Your task to perform on an android device: turn pop-ups off in chrome Image 0: 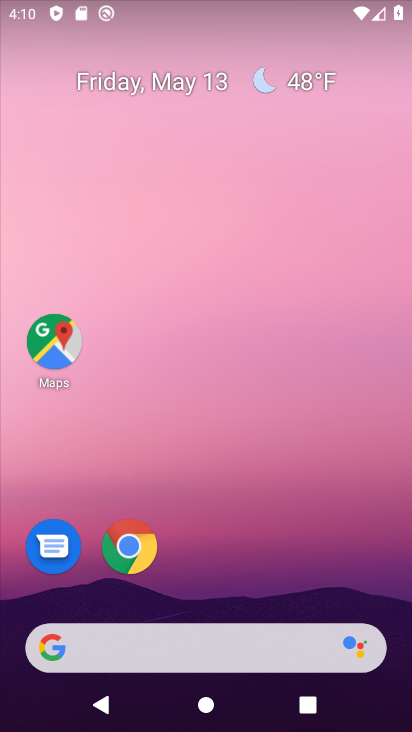
Step 0: drag from (254, 580) to (174, 7)
Your task to perform on an android device: turn pop-ups off in chrome Image 1: 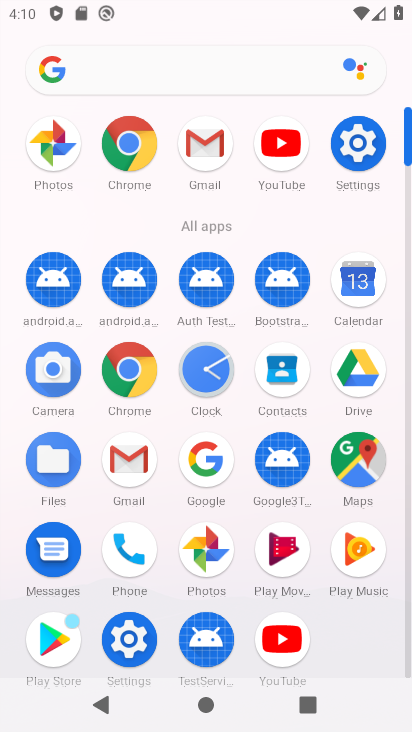
Step 1: drag from (372, 562) to (256, 5)
Your task to perform on an android device: turn pop-ups off in chrome Image 2: 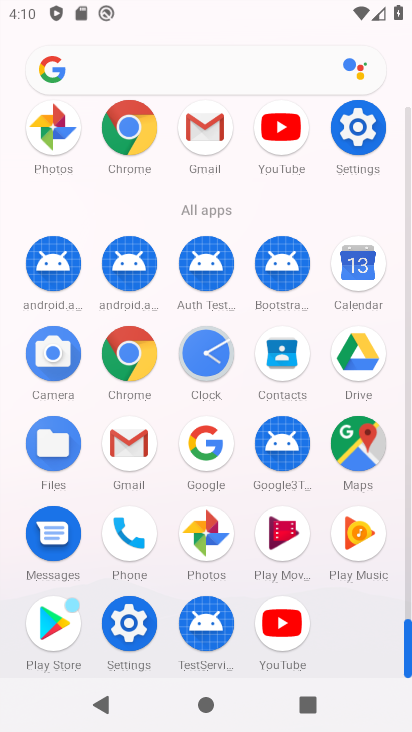
Step 2: click (120, 119)
Your task to perform on an android device: turn pop-ups off in chrome Image 3: 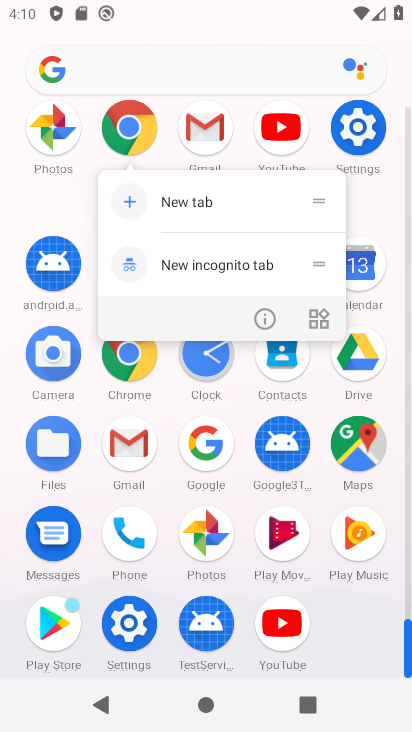
Step 3: drag from (124, 125) to (160, 572)
Your task to perform on an android device: turn pop-ups off in chrome Image 4: 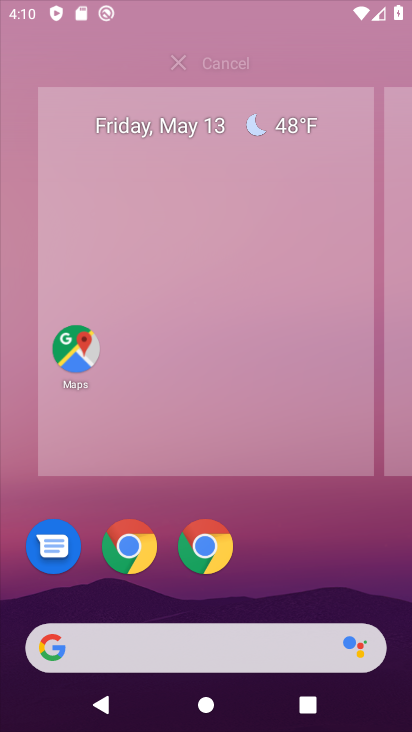
Step 4: drag from (264, 600) to (127, 115)
Your task to perform on an android device: turn pop-ups off in chrome Image 5: 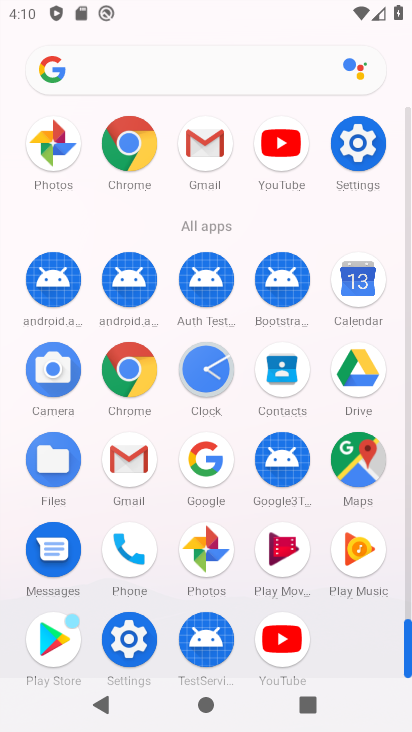
Step 5: drag from (277, 520) to (166, 56)
Your task to perform on an android device: turn pop-ups off in chrome Image 6: 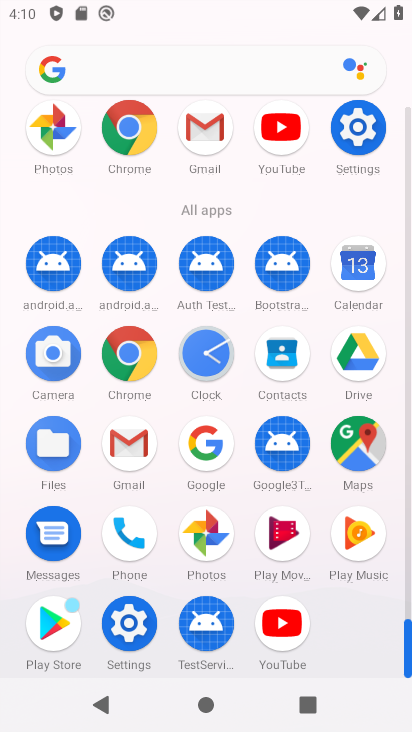
Step 6: click (115, 347)
Your task to perform on an android device: turn pop-ups off in chrome Image 7: 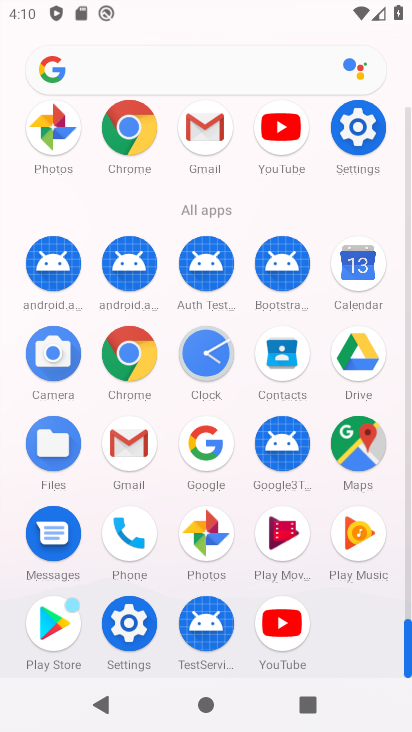
Step 7: click (116, 349)
Your task to perform on an android device: turn pop-ups off in chrome Image 8: 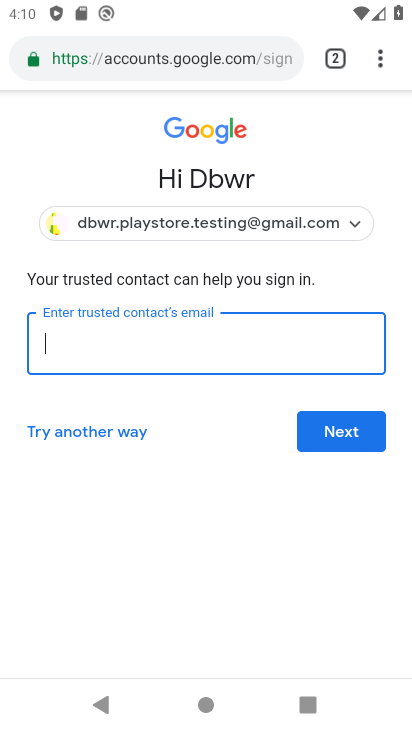
Step 8: press back button
Your task to perform on an android device: turn pop-ups off in chrome Image 9: 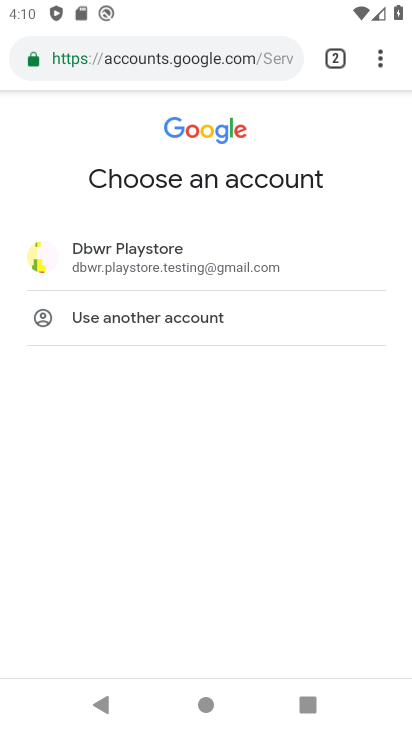
Step 9: click (159, 268)
Your task to perform on an android device: turn pop-ups off in chrome Image 10: 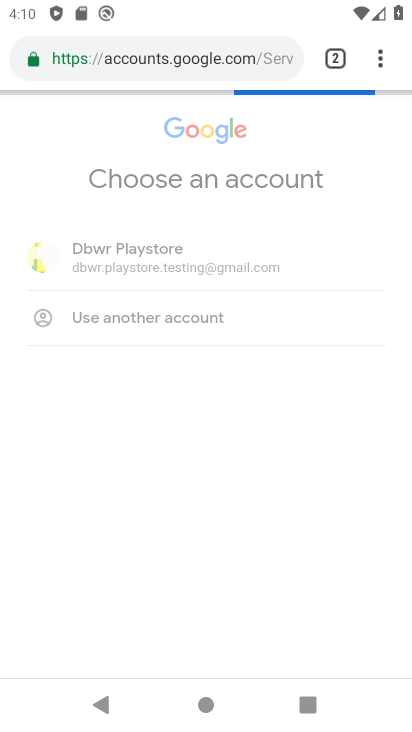
Step 10: press back button
Your task to perform on an android device: turn pop-ups off in chrome Image 11: 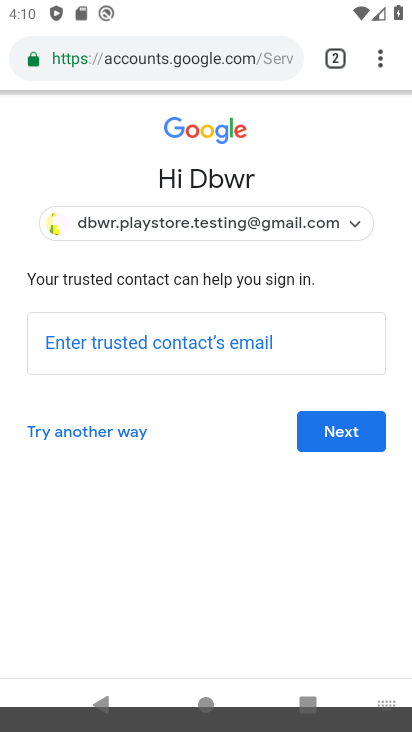
Step 11: press back button
Your task to perform on an android device: turn pop-ups off in chrome Image 12: 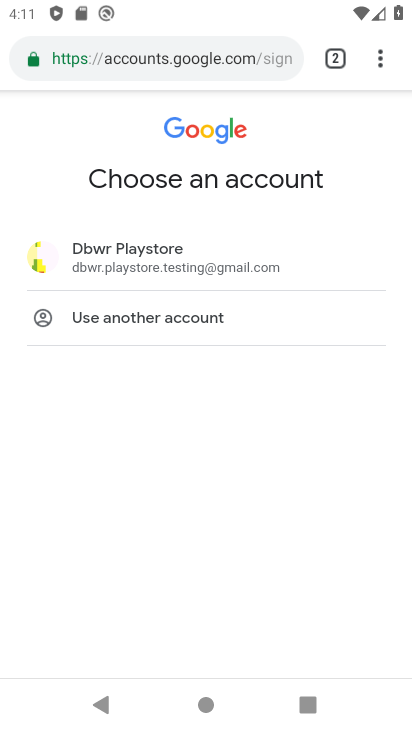
Step 12: press back button
Your task to perform on an android device: turn pop-ups off in chrome Image 13: 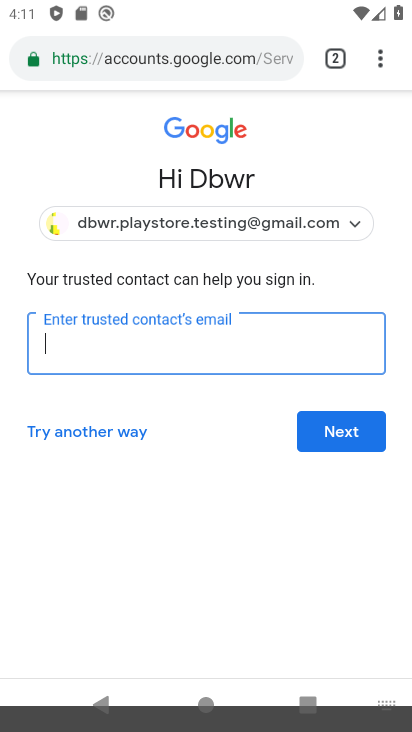
Step 13: press back button
Your task to perform on an android device: turn pop-ups off in chrome Image 14: 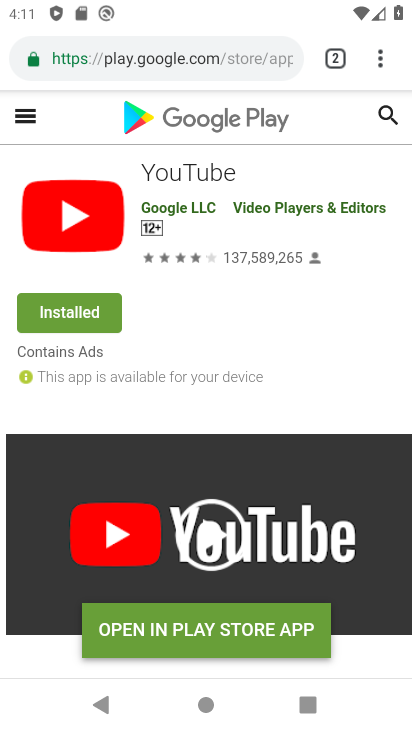
Step 14: press home button
Your task to perform on an android device: turn pop-ups off in chrome Image 15: 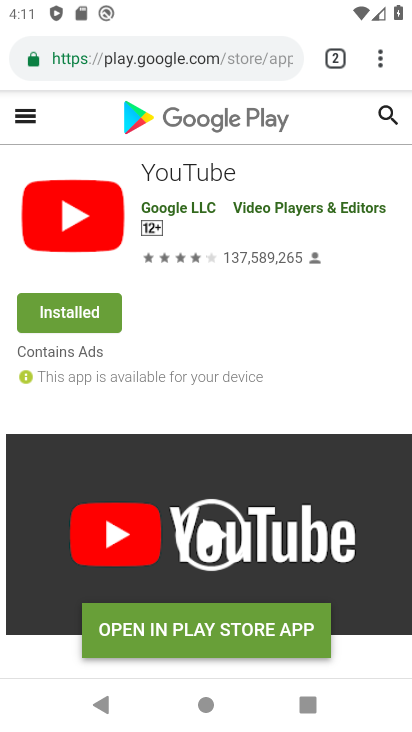
Step 15: press home button
Your task to perform on an android device: turn pop-ups off in chrome Image 16: 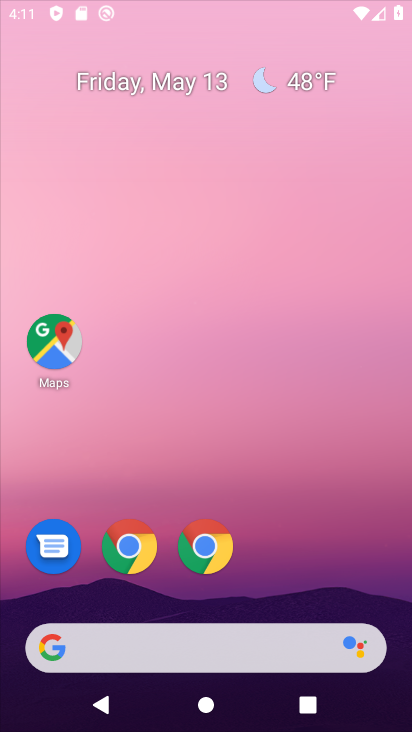
Step 16: press home button
Your task to perform on an android device: turn pop-ups off in chrome Image 17: 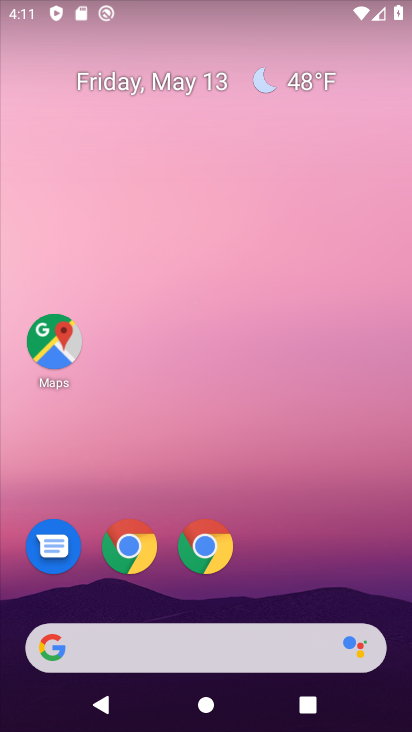
Step 17: drag from (352, 604) to (225, 6)
Your task to perform on an android device: turn pop-ups off in chrome Image 18: 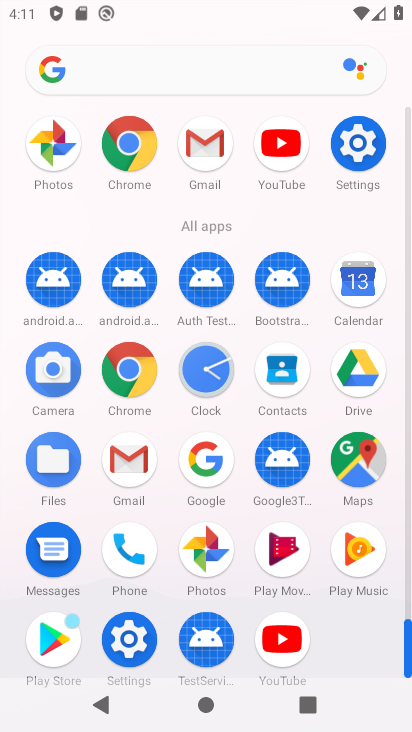
Step 18: click (119, 136)
Your task to perform on an android device: turn pop-ups off in chrome Image 19: 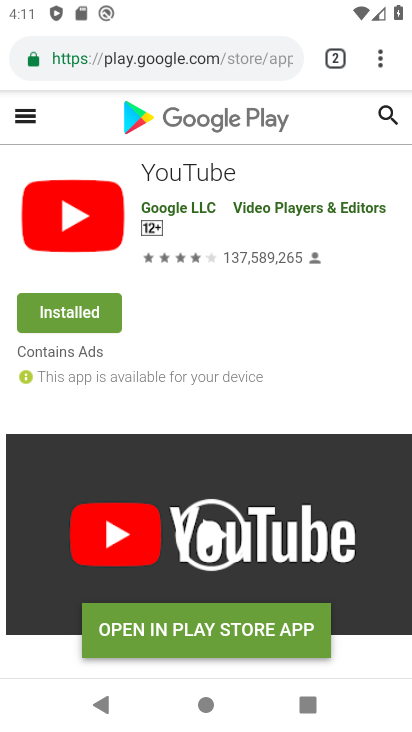
Step 19: drag from (371, 59) to (173, 561)
Your task to perform on an android device: turn pop-ups off in chrome Image 20: 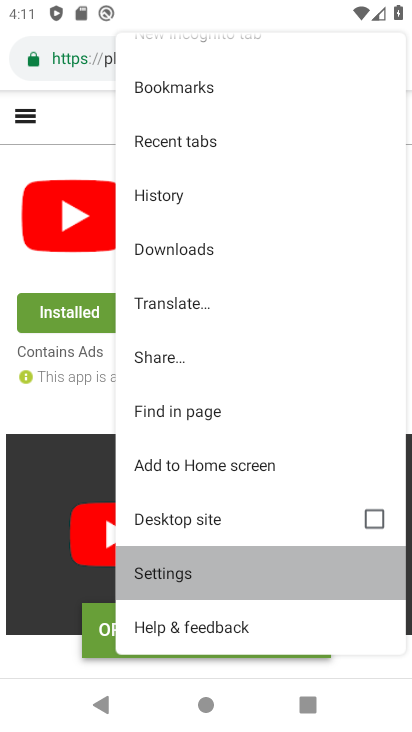
Step 20: click (172, 564)
Your task to perform on an android device: turn pop-ups off in chrome Image 21: 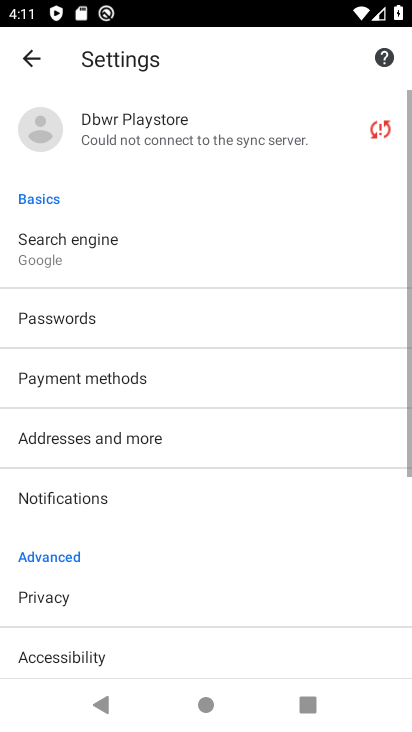
Step 21: drag from (93, 523) to (189, 42)
Your task to perform on an android device: turn pop-ups off in chrome Image 22: 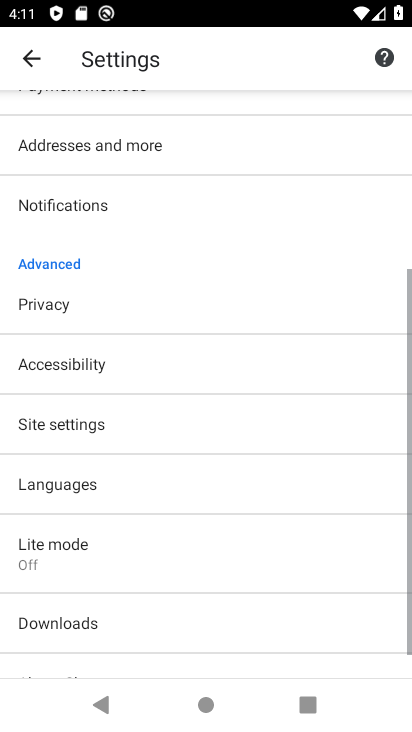
Step 22: drag from (167, 449) to (184, 3)
Your task to perform on an android device: turn pop-ups off in chrome Image 23: 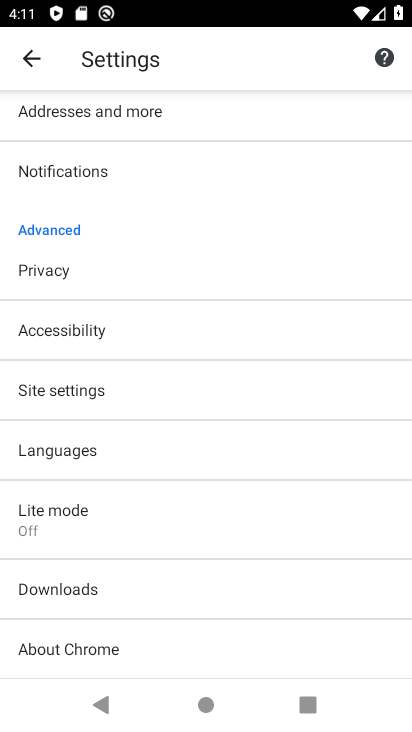
Step 23: click (44, 390)
Your task to perform on an android device: turn pop-ups off in chrome Image 24: 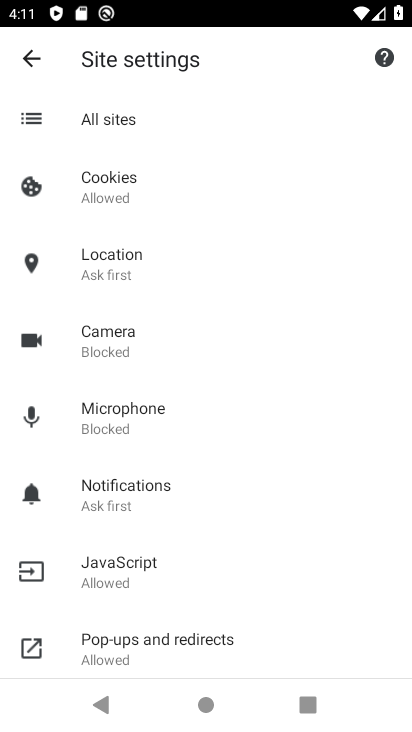
Step 24: click (101, 639)
Your task to perform on an android device: turn pop-ups off in chrome Image 25: 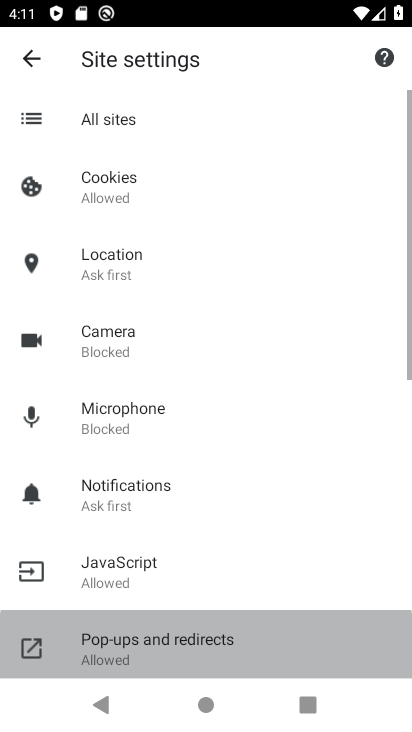
Step 25: click (98, 643)
Your task to perform on an android device: turn pop-ups off in chrome Image 26: 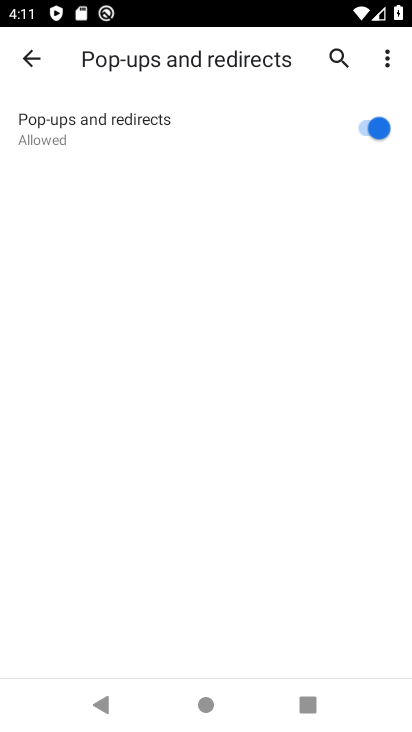
Step 26: click (369, 122)
Your task to perform on an android device: turn pop-ups off in chrome Image 27: 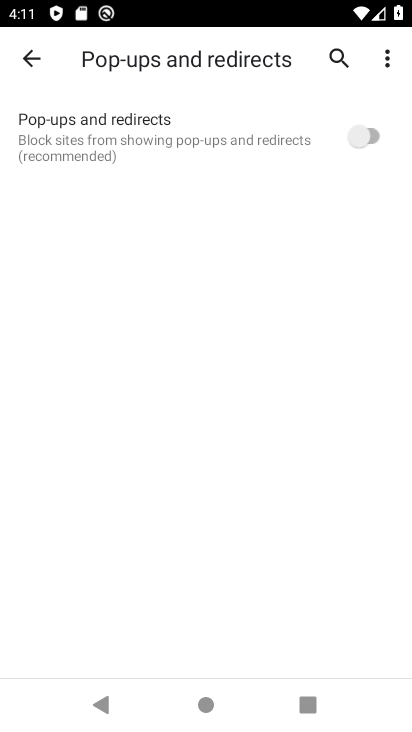
Step 27: task complete